Your task to perform on an android device: check storage Image 0: 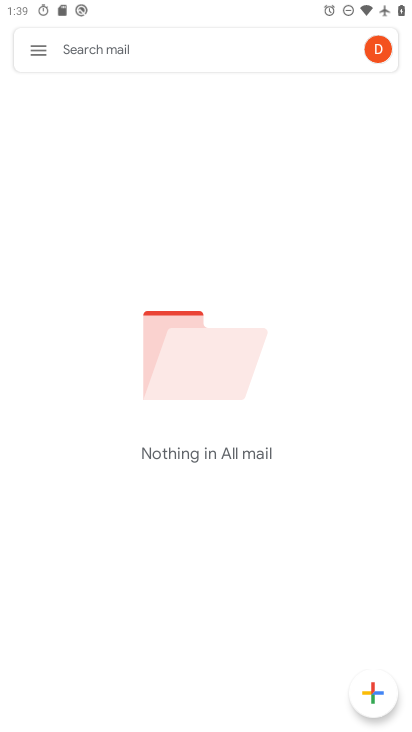
Step 0: press home button
Your task to perform on an android device: check storage Image 1: 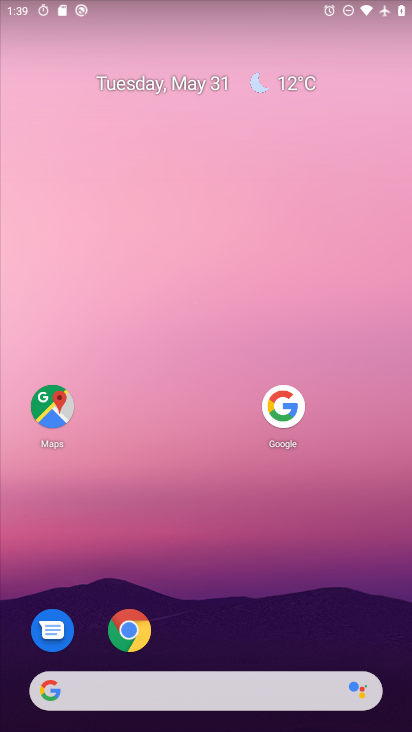
Step 1: drag from (179, 670) to (294, 102)
Your task to perform on an android device: check storage Image 2: 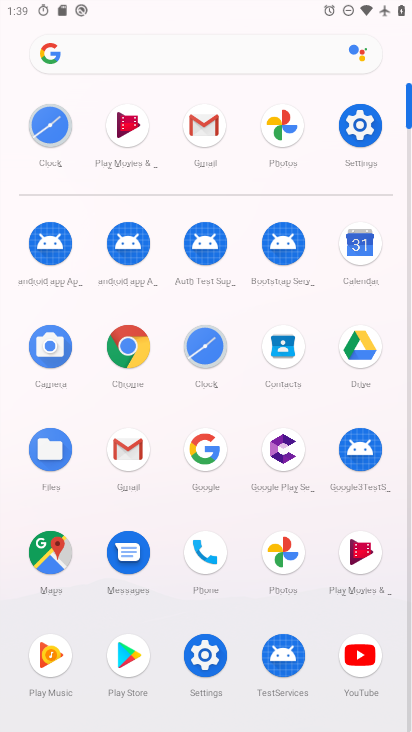
Step 2: click (353, 130)
Your task to perform on an android device: check storage Image 3: 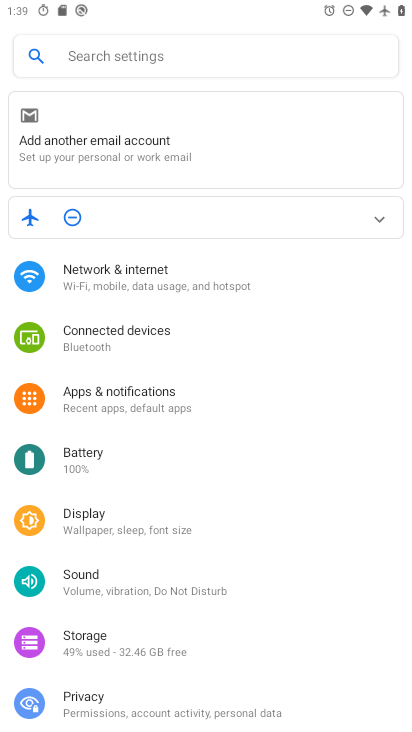
Step 3: click (104, 645)
Your task to perform on an android device: check storage Image 4: 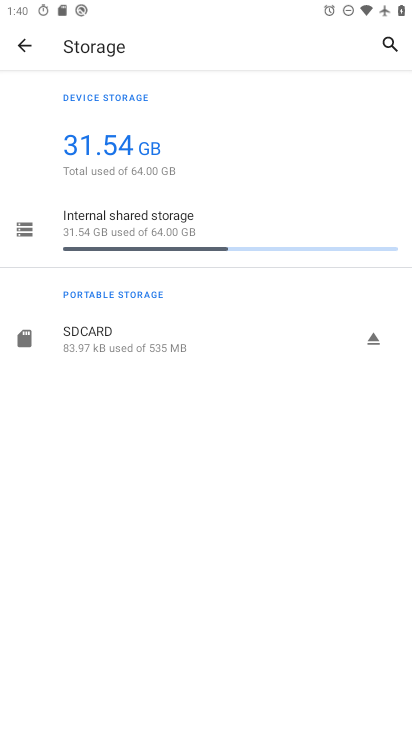
Step 4: task complete